Your task to perform on an android device: turn on notifications settings in the gmail app Image 0: 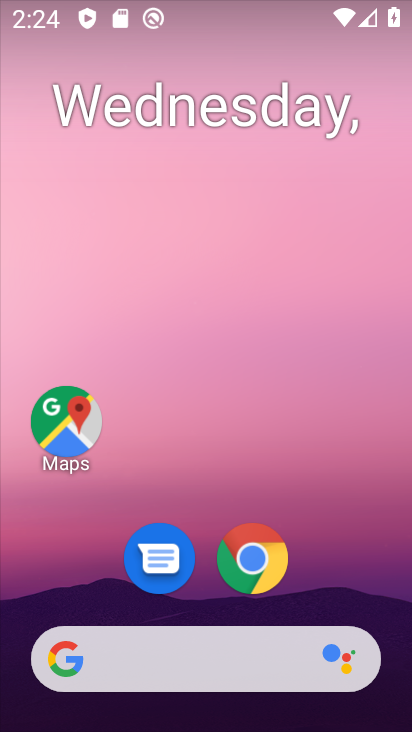
Step 0: drag from (370, 554) to (382, 163)
Your task to perform on an android device: turn on notifications settings in the gmail app Image 1: 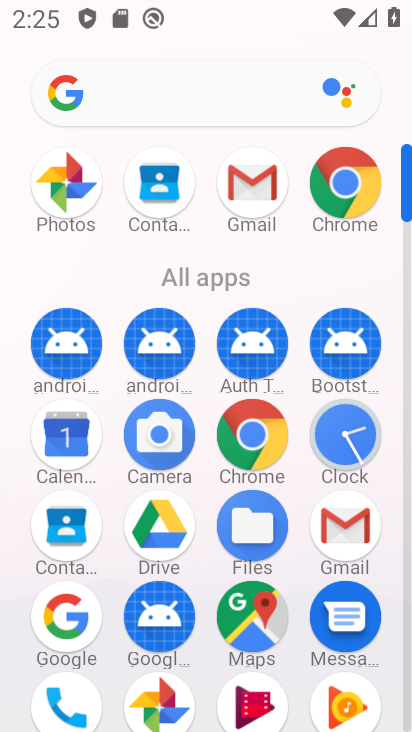
Step 1: click (357, 553)
Your task to perform on an android device: turn on notifications settings in the gmail app Image 2: 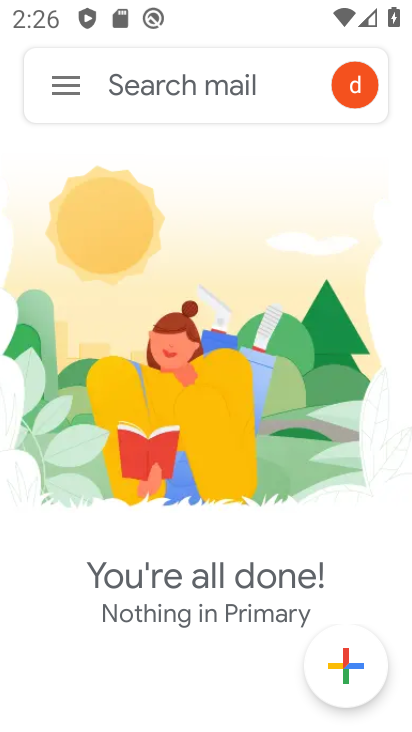
Step 2: click (59, 83)
Your task to perform on an android device: turn on notifications settings in the gmail app Image 3: 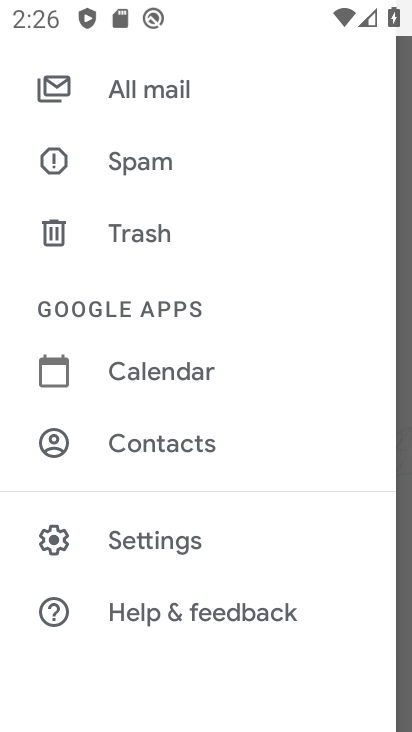
Step 3: click (198, 546)
Your task to perform on an android device: turn on notifications settings in the gmail app Image 4: 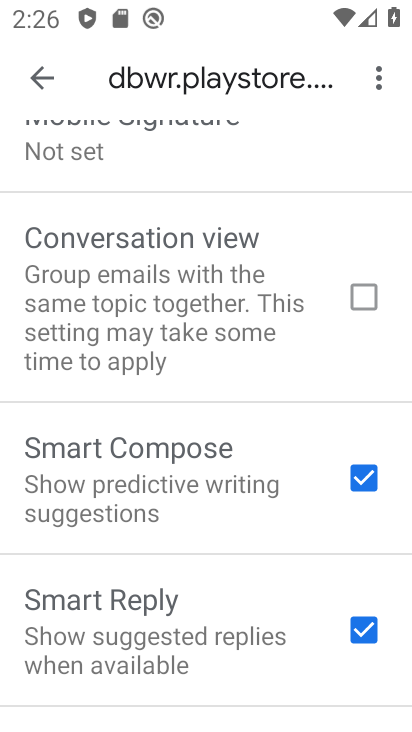
Step 4: drag from (237, 649) to (252, 405)
Your task to perform on an android device: turn on notifications settings in the gmail app Image 5: 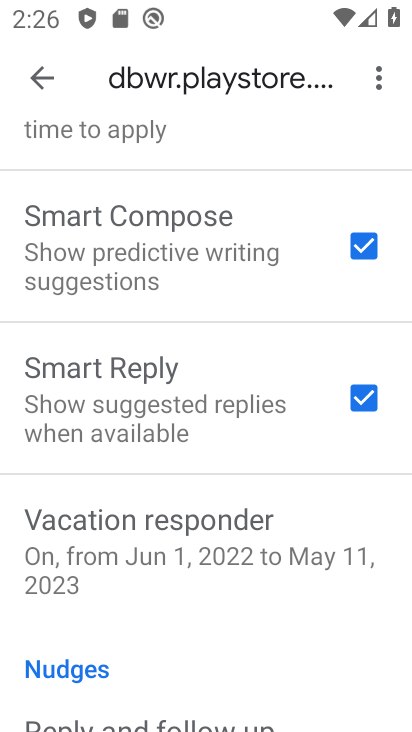
Step 5: drag from (249, 165) to (209, 600)
Your task to perform on an android device: turn on notifications settings in the gmail app Image 6: 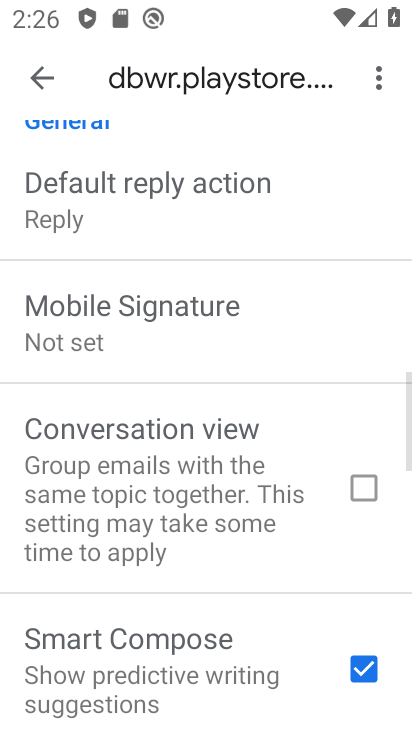
Step 6: drag from (239, 230) to (215, 701)
Your task to perform on an android device: turn on notifications settings in the gmail app Image 7: 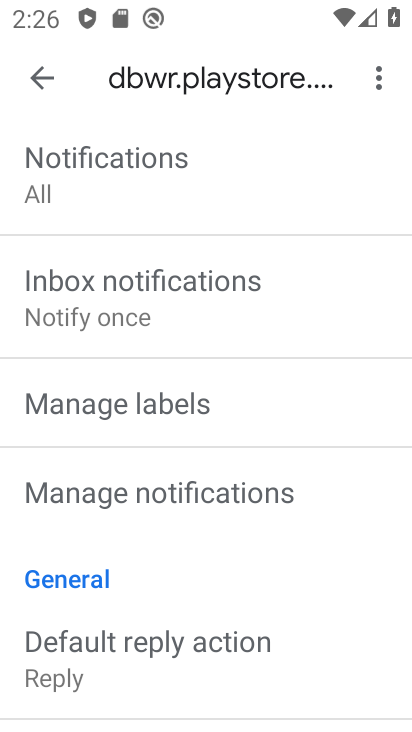
Step 7: drag from (233, 388) to (183, 691)
Your task to perform on an android device: turn on notifications settings in the gmail app Image 8: 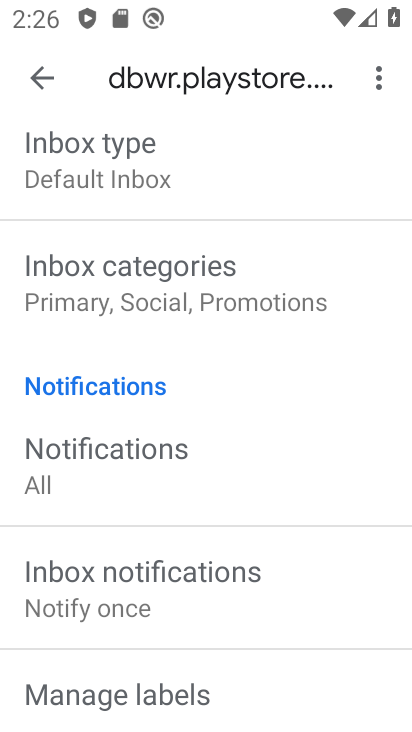
Step 8: click (150, 450)
Your task to perform on an android device: turn on notifications settings in the gmail app Image 9: 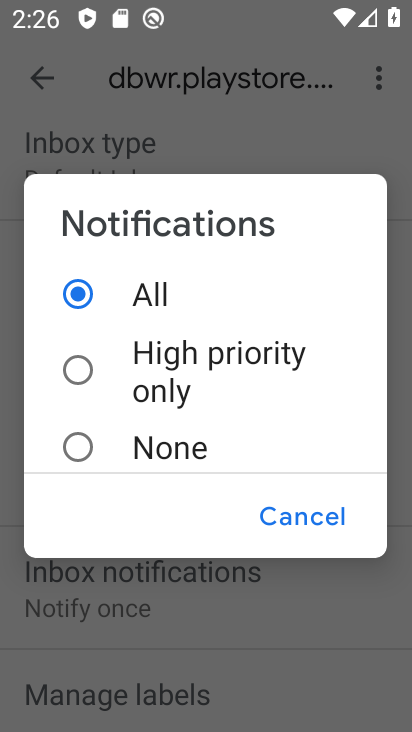
Step 9: task complete